Your task to perform on an android device: Is it going to rain this weekend? Image 0: 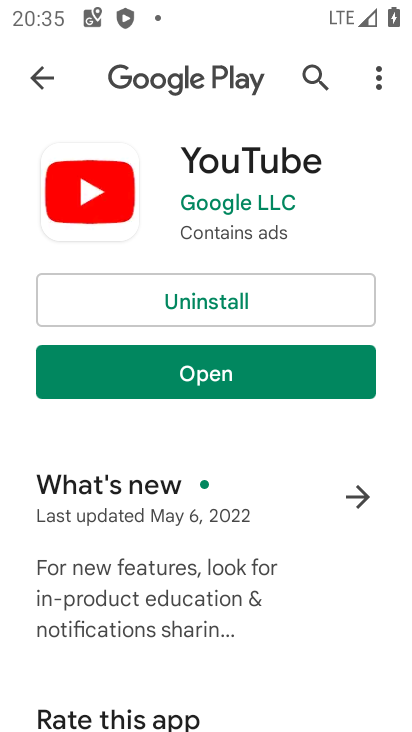
Step 0: click (256, 565)
Your task to perform on an android device: Is it going to rain this weekend? Image 1: 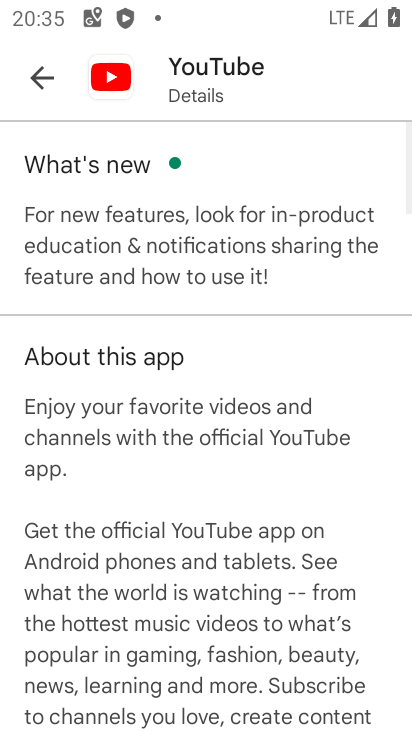
Step 1: press home button
Your task to perform on an android device: Is it going to rain this weekend? Image 2: 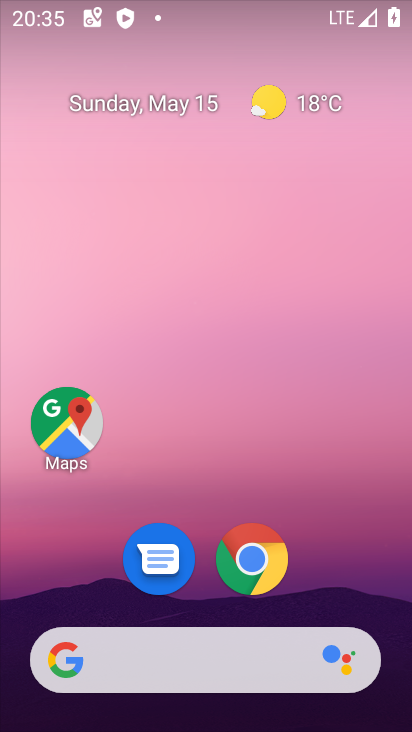
Step 2: click (213, 663)
Your task to perform on an android device: Is it going to rain this weekend? Image 3: 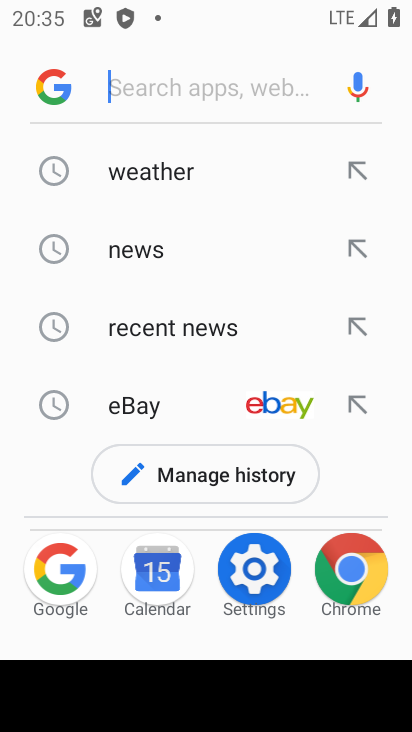
Step 3: click (162, 166)
Your task to perform on an android device: Is it going to rain this weekend? Image 4: 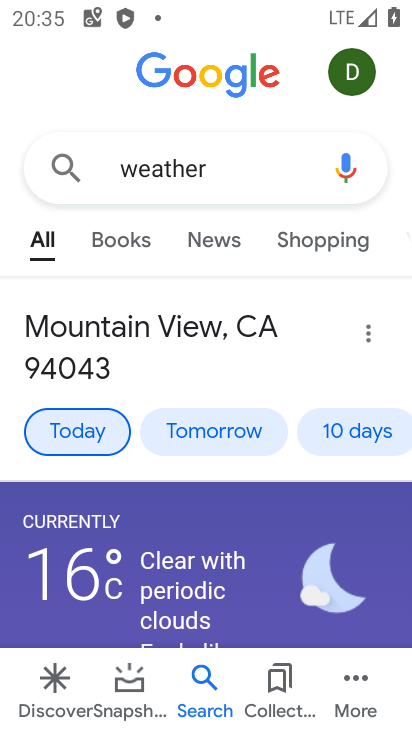
Step 4: task complete